Your task to perform on an android device: turn off improve location accuracy Image 0: 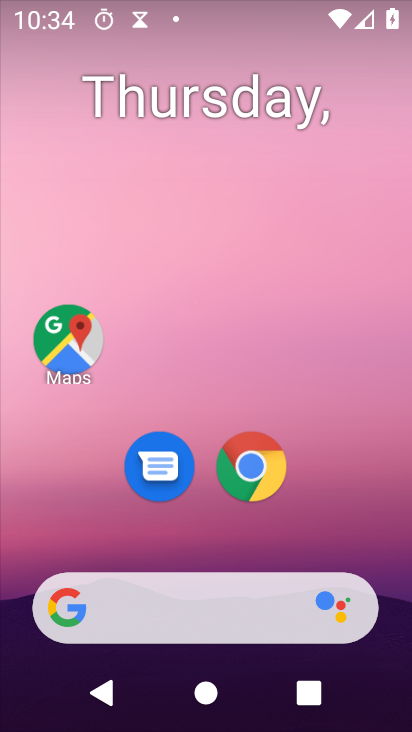
Step 0: drag from (198, 492) to (273, 137)
Your task to perform on an android device: turn off improve location accuracy Image 1: 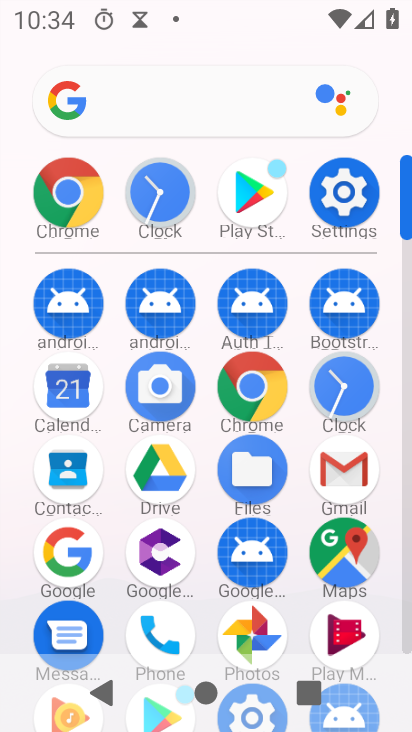
Step 1: click (351, 181)
Your task to perform on an android device: turn off improve location accuracy Image 2: 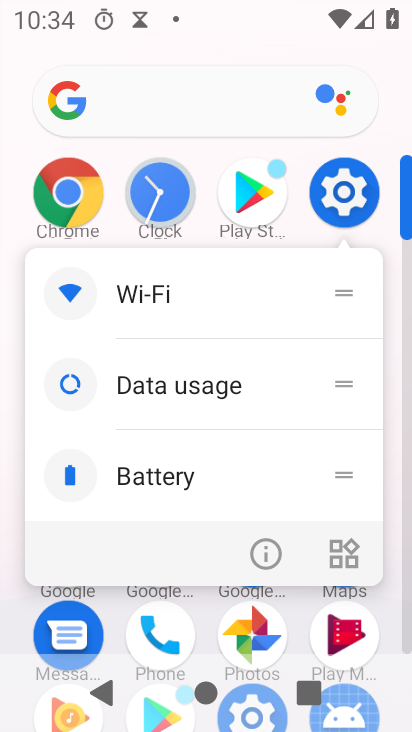
Step 2: click (345, 189)
Your task to perform on an android device: turn off improve location accuracy Image 3: 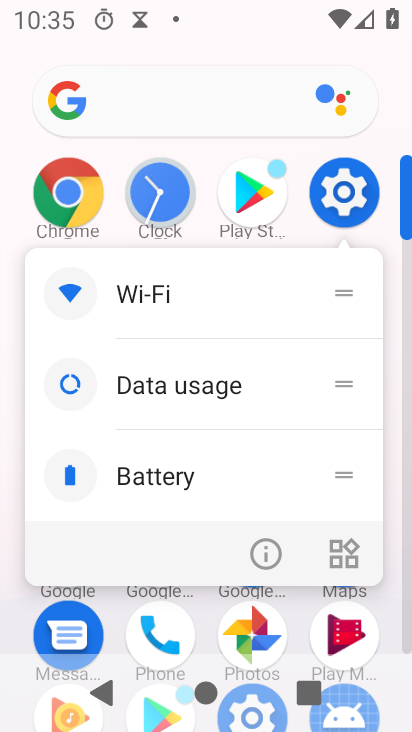
Step 3: click (339, 193)
Your task to perform on an android device: turn off improve location accuracy Image 4: 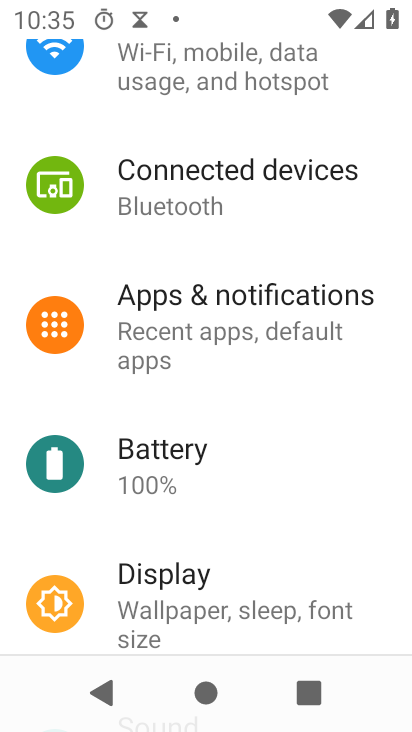
Step 4: drag from (217, 566) to (234, 141)
Your task to perform on an android device: turn off improve location accuracy Image 5: 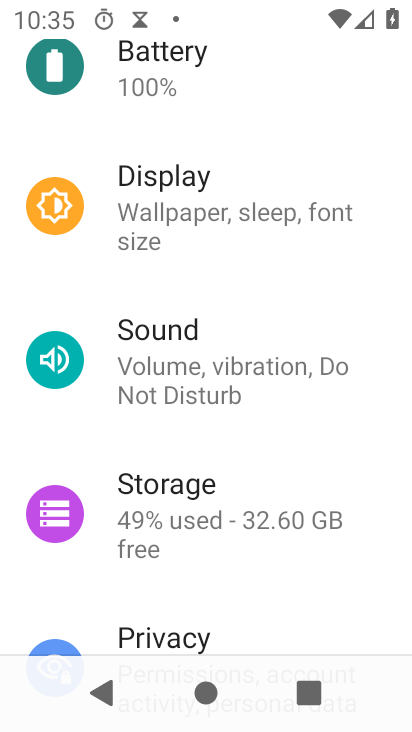
Step 5: drag from (195, 605) to (321, 121)
Your task to perform on an android device: turn off improve location accuracy Image 6: 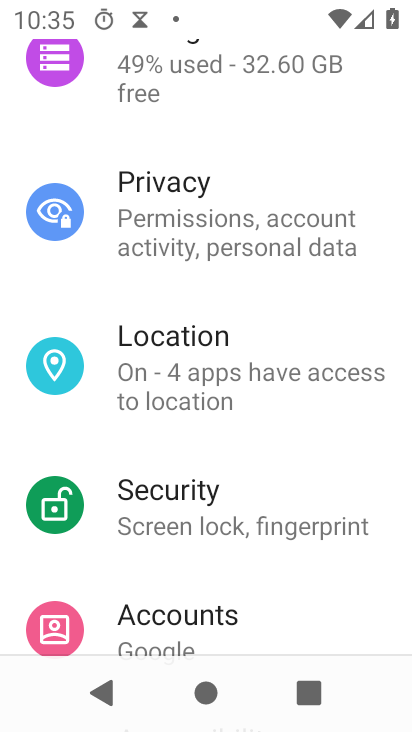
Step 6: click (187, 369)
Your task to perform on an android device: turn off improve location accuracy Image 7: 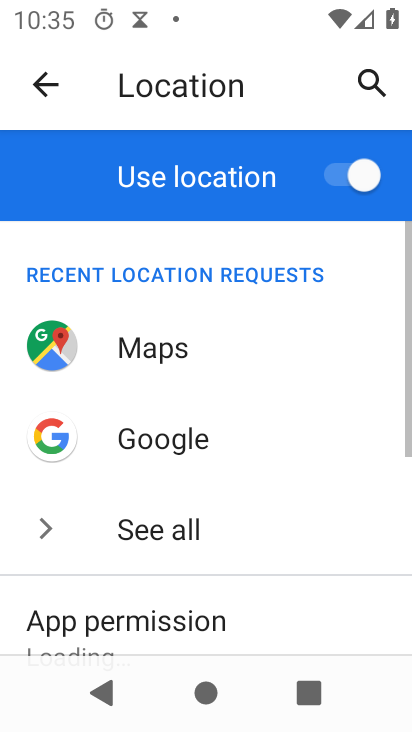
Step 7: drag from (169, 622) to (344, 118)
Your task to perform on an android device: turn off improve location accuracy Image 8: 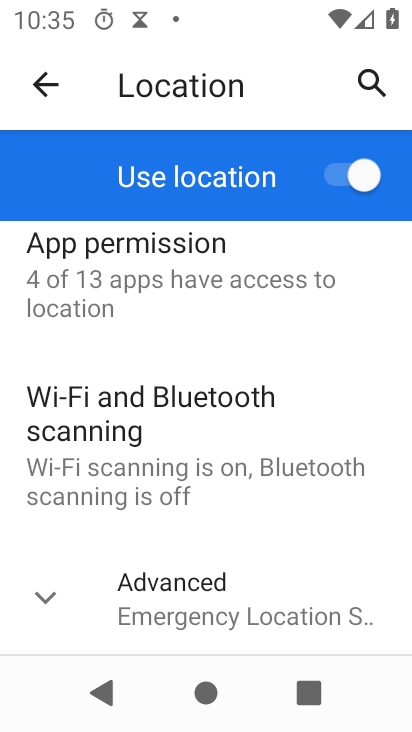
Step 8: click (124, 600)
Your task to perform on an android device: turn off improve location accuracy Image 9: 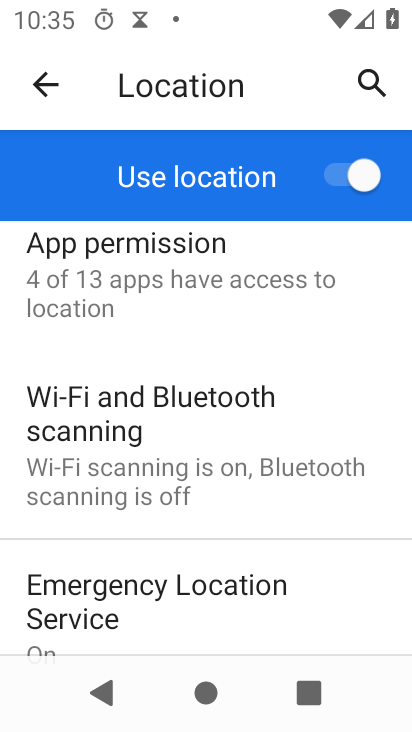
Step 9: drag from (142, 571) to (282, 281)
Your task to perform on an android device: turn off improve location accuracy Image 10: 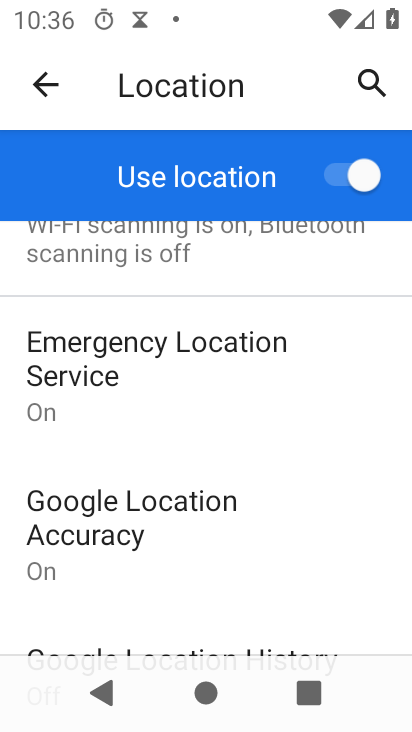
Step 10: click (116, 542)
Your task to perform on an android device: turn off improve location accuracy Image 11: 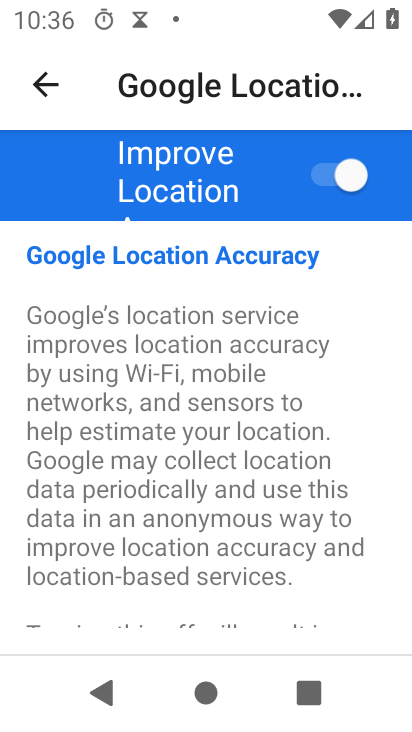
Step 11: click (323, 175)
Your task to perform on an android device: turn off improve location accuracy Image 12: 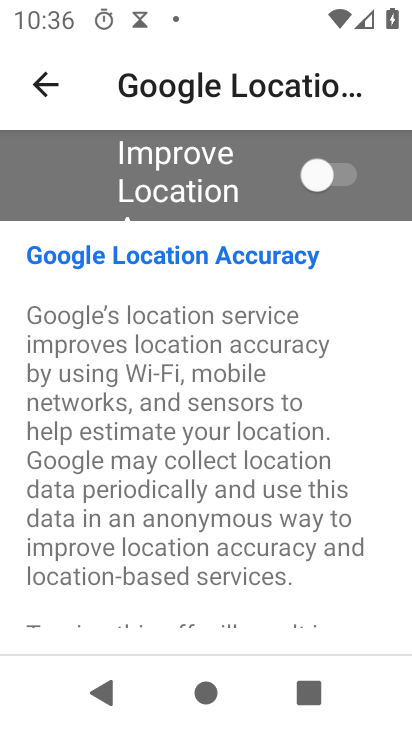
Step 12: task complete